Your task to perform on an android device: install app "Life360: Find Family & Friends" Image 0: 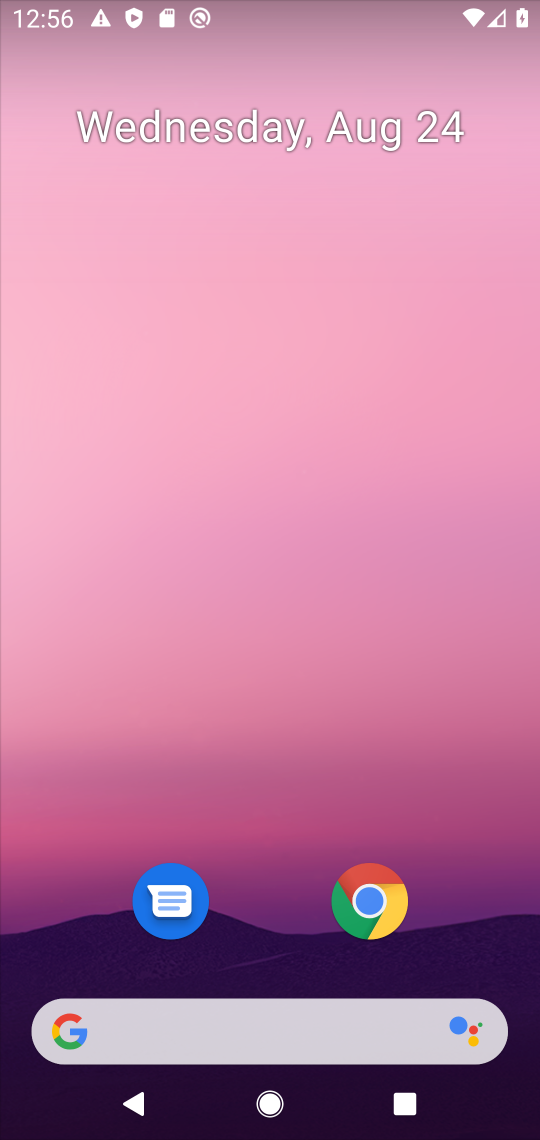
Step 0: drag from (275, 637) to (359, 89)
Your task to perform on an android device: install app "Life360: Find Family & Friends" Image 1: 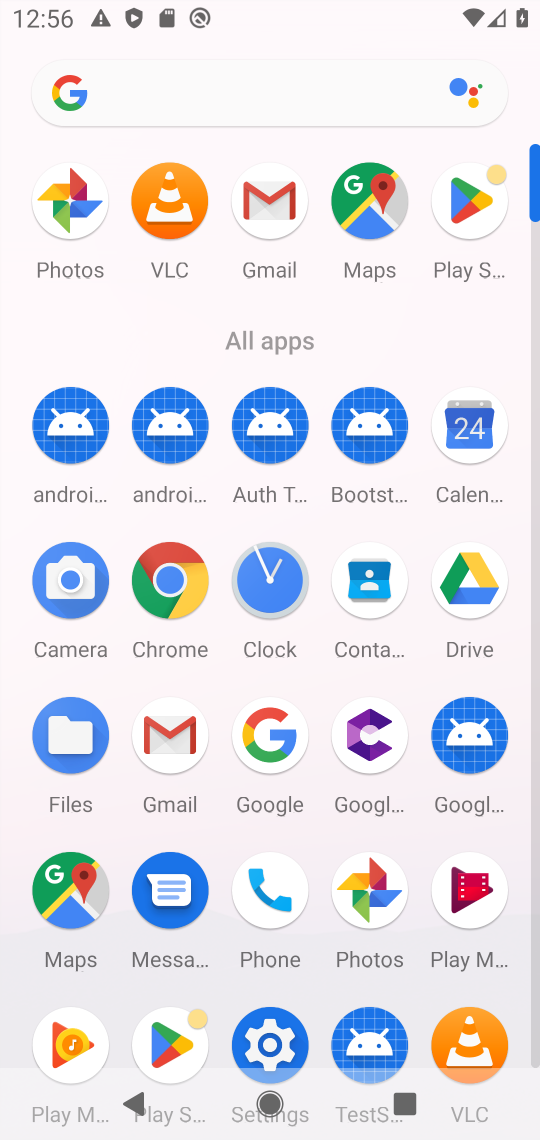
Step 1: click (475, 202)
Your task to perform on an android device: install app "Life360: Find Family & Friends" Image 2: 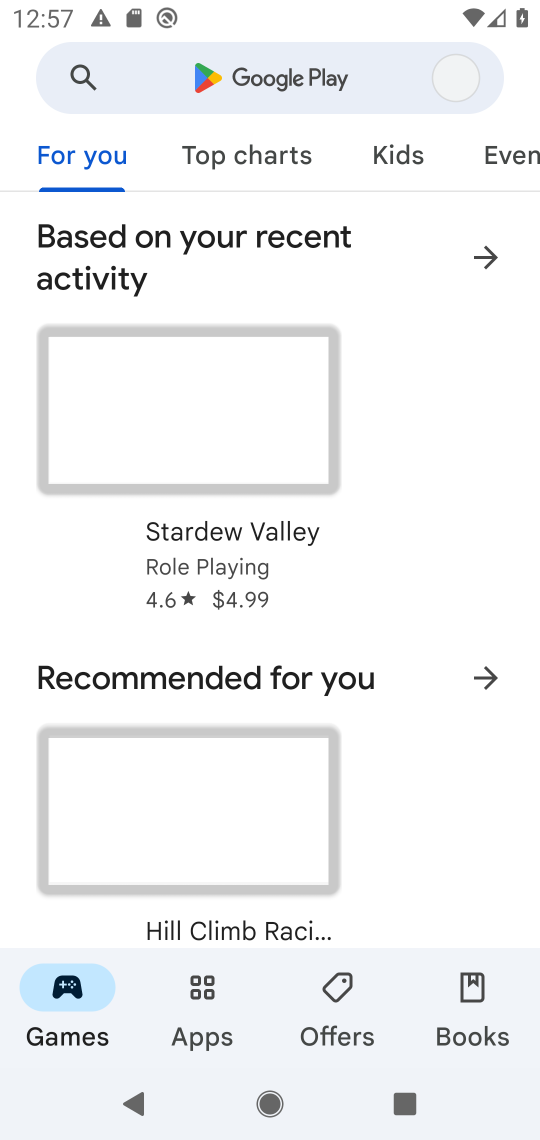
Step 2: click (293, 70)
Your task to perform on an android device: install app "Life360: Find Family & Friends" Image 3: 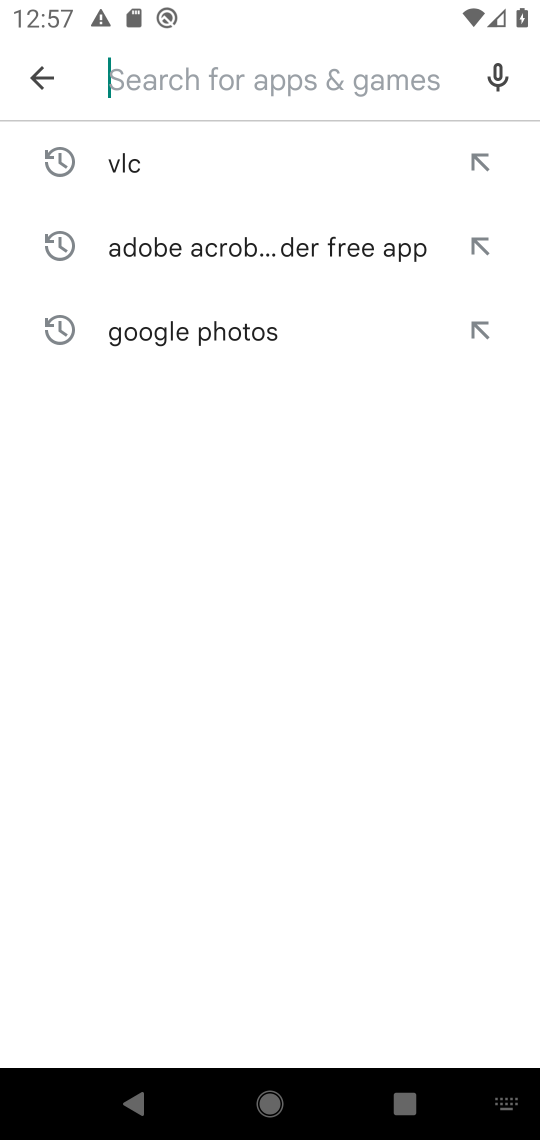
Step 3: type "life 360"
Your task to perform on an android device: install app "Life360: Find Family & Friends" Image 4: 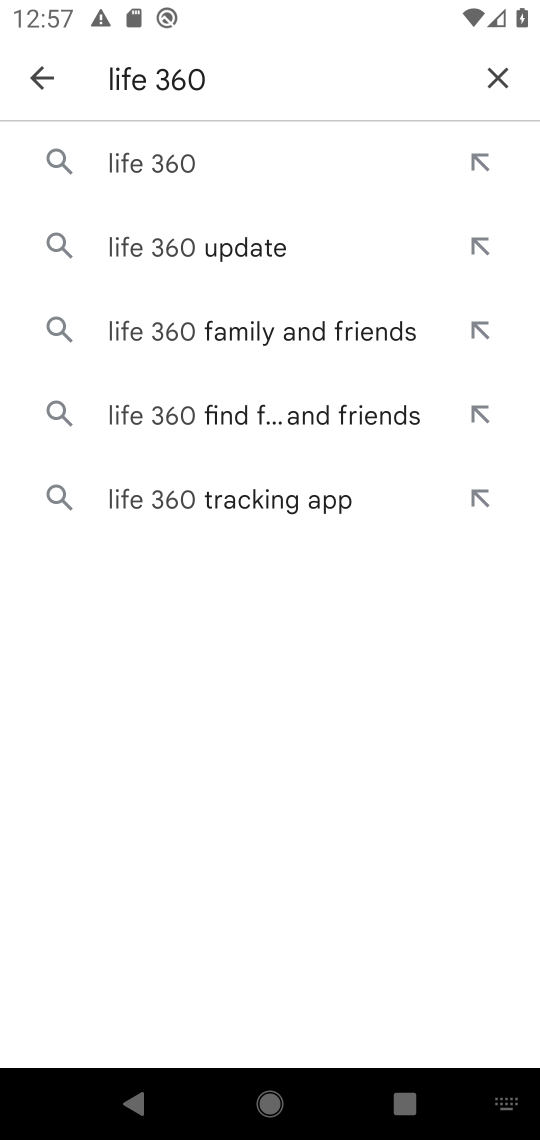
Step 4: click (204, 163)
Your task to perform on an android device: install app "Life360: Find Family & Friends" Image 5: 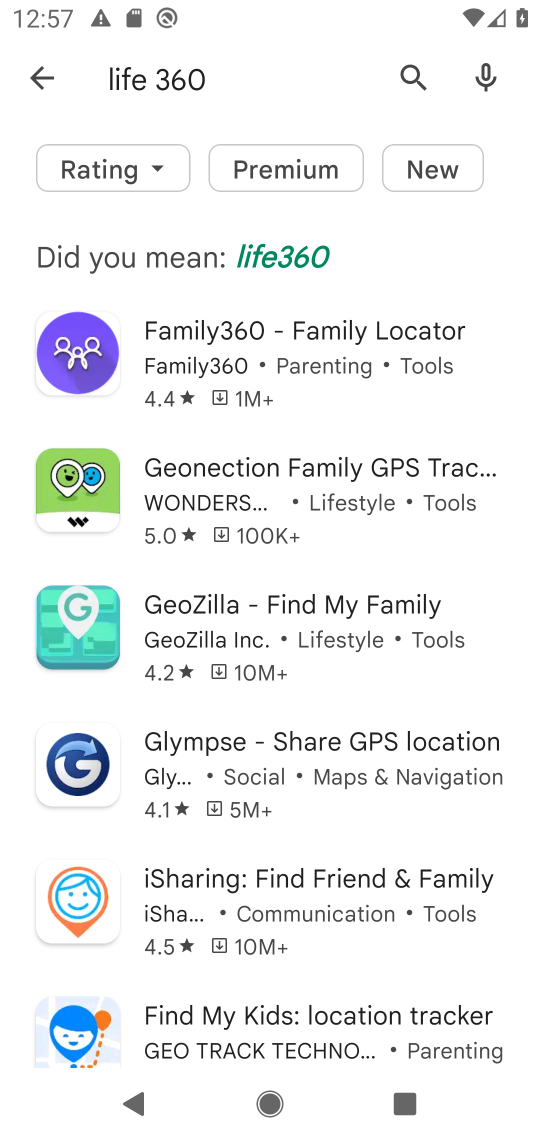
Step 5: task complete